Your task to perform on an android device: Open settings Image 0: 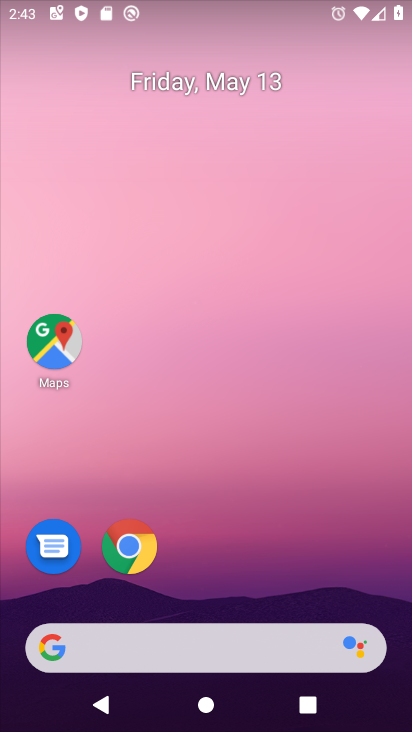
Step 0: drag from (243, 554) to (257, 25)
Your task to perform on an android device: Open settings Image 1: 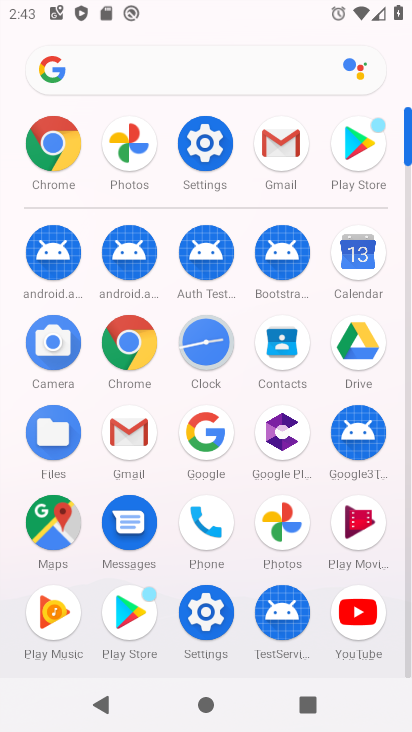
Step 1: click (205, 142)
Your task to perform on an android device: Open settings Image 2: 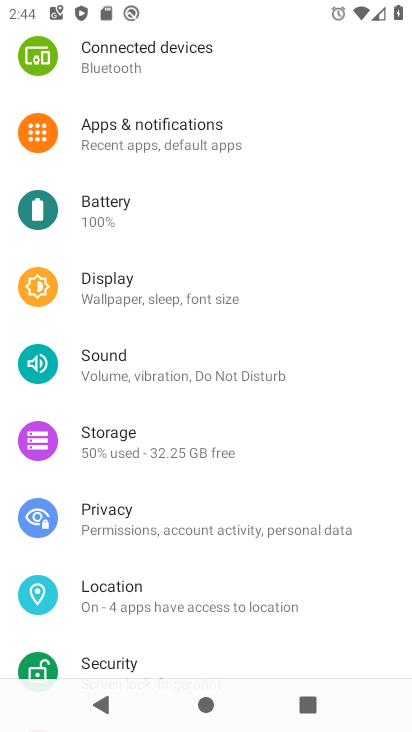
Step 2: task complete